Your task to perform on an android device: clear all cookies in the chrome app Image 0: 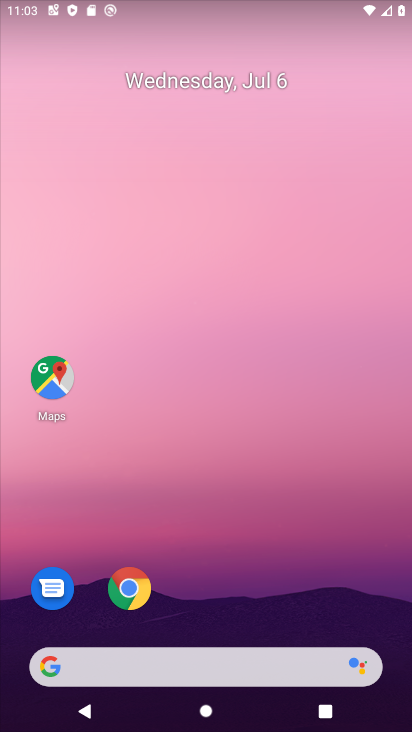
Step 0: drag from (215, 612) to (264, 204)
Your task to perform on an android device: clear all cookies in the chrome app Image 1: 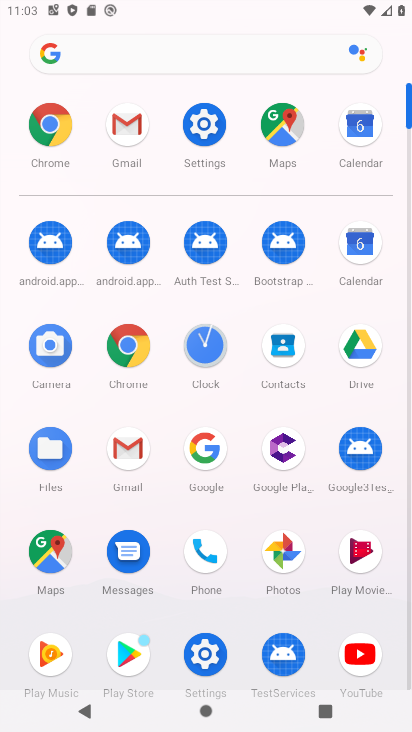
Step 1: click (139, 349)
Your task to perform on an android device: clear all cookies in the chrome app Image 2: 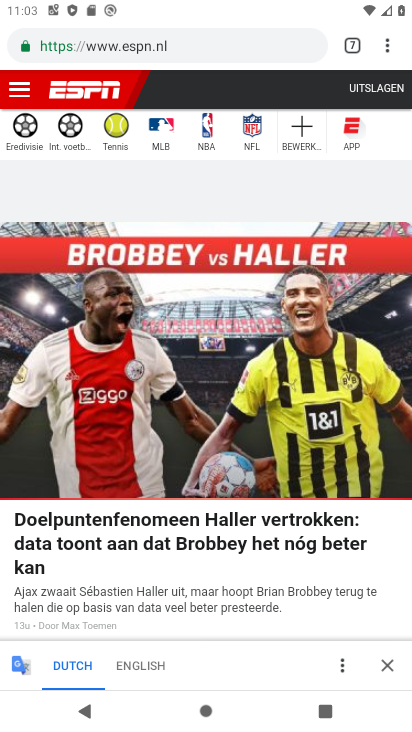
Step 2: click (403, 38)
Your task to perform on an android device: clear all cookies in the chrome app Image 3: 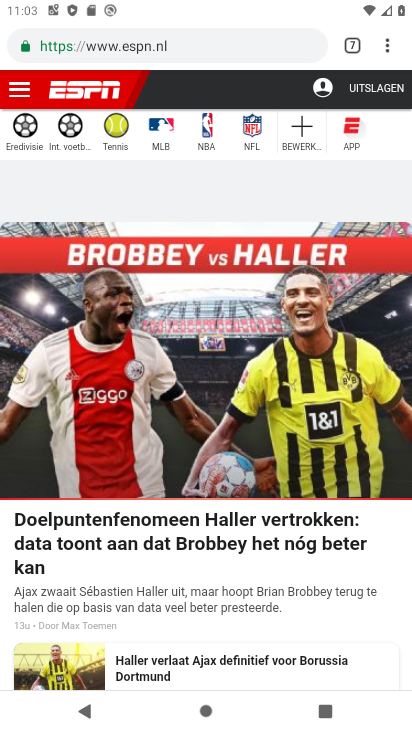
Step 3: click (375, 49)
Your task to perform on an android device: clear all cookies in the chrome app Image 4: 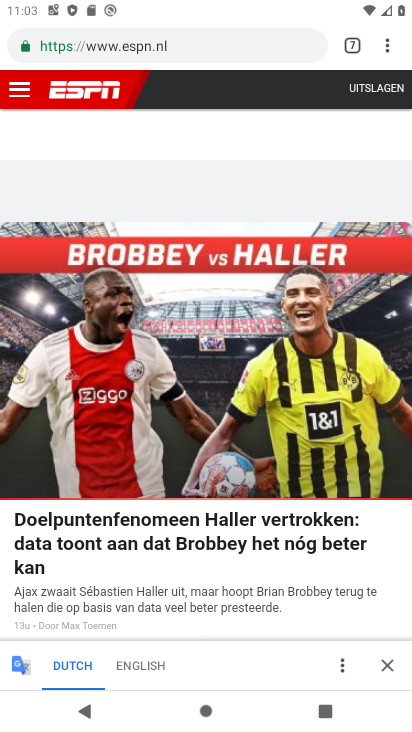
Step 4: click (392, 37)
Your task to perform on an android device: clear all cookies in the chrome app Image 5: 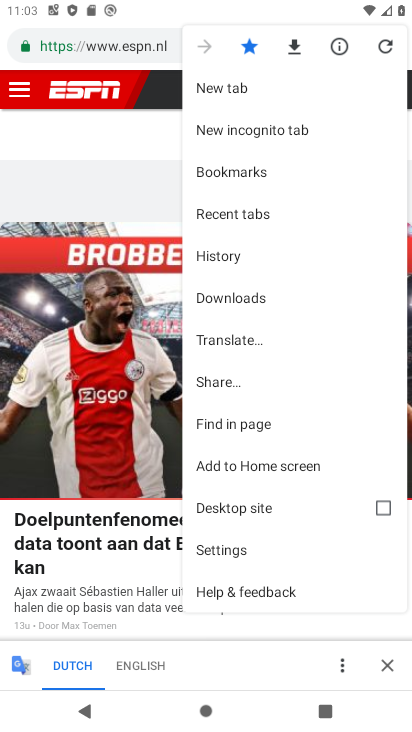
Step 5: click (211, 543)
Your task to perform on an android device: clear all cookies in the chrome app Image 6: 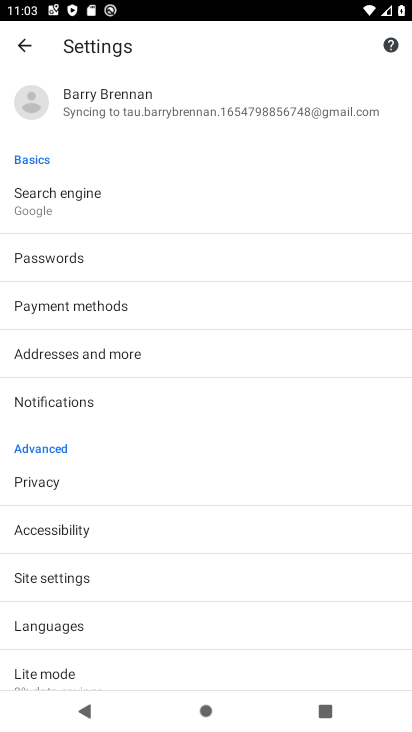
Step 6: drag from (231, 603) to (254, 201)
Your task to perform on an android device: clear all cookies in the chrome app Image 7: 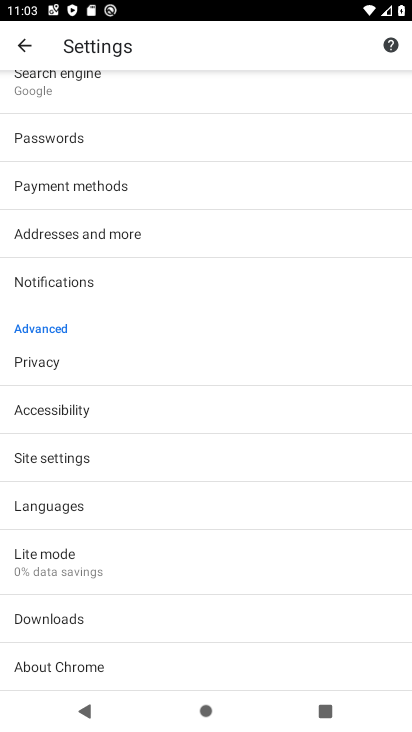
Step 7: drag from (199, 578) to (226, 50)
Your task to perform on an android device: clear all cookies in the chrome app Image 8: 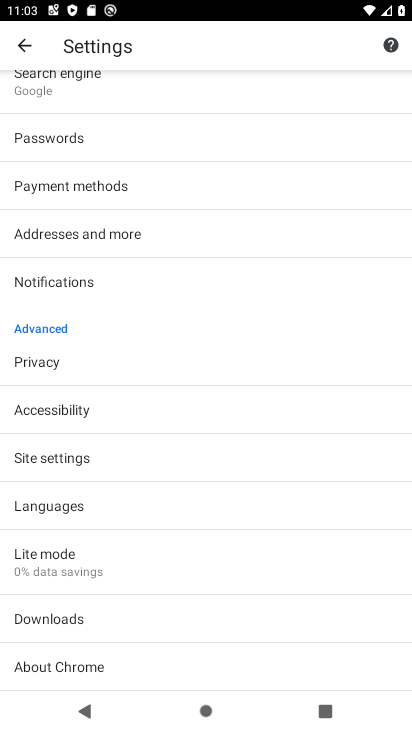
Step 8: drag from (157, 603) to (192, 181)
Your task to perform on an android device: clear all cookies in the chrome app Image 9: 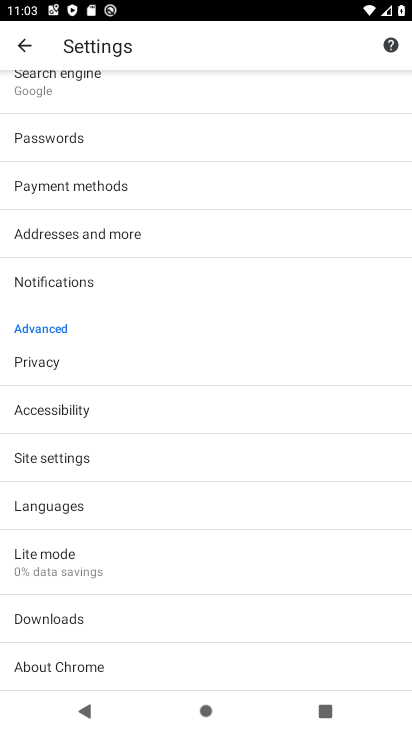
Step 9: click (86, 368)
Your task to perform on an android device: clear all cookies in the chrome app Image 10: 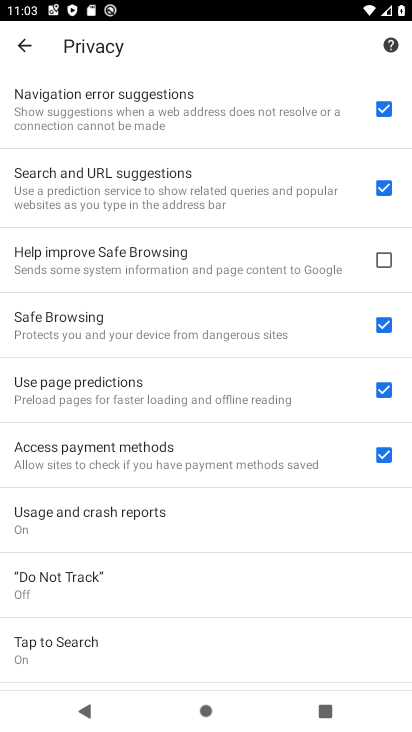
Step 10: drag from (153, 633) to (193, 219)
Your task to perform on an android device: clear all cookies in the chrome app Image 11: 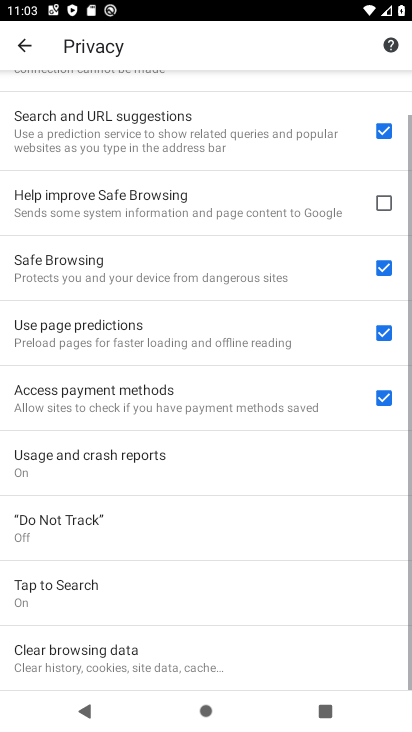
Step 11: click (97, 657)
Your task to perform on an android device: clear all cookies in the chrome app Image 12: 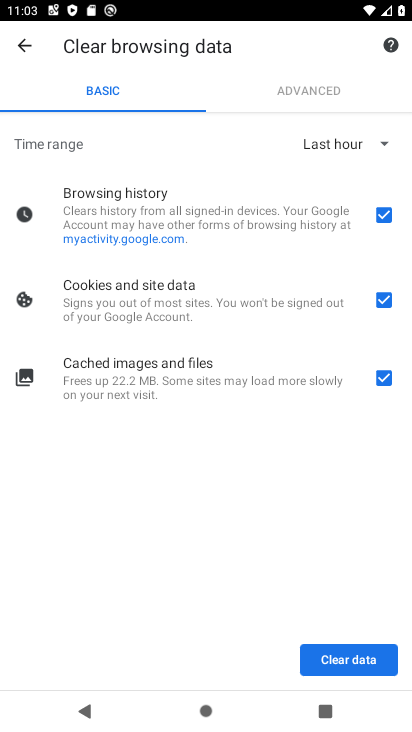
Step 12: click (329, 651)
Your task to perform on an android device: clear all cookies in the chrome app Image 13: 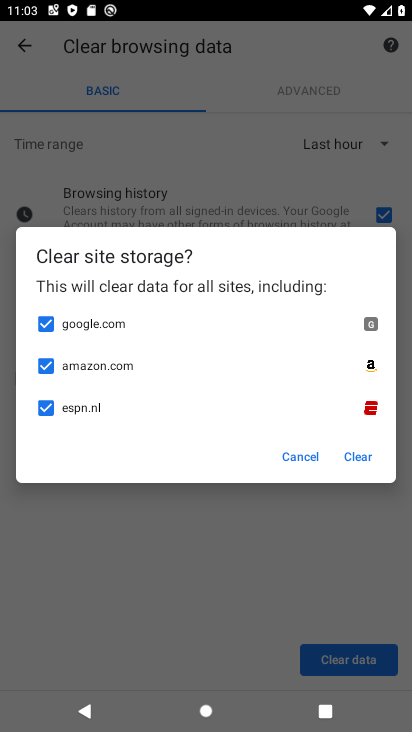
Step 13: click (370, 444)
Your task to perform on an android device: clear all cookies in the chrome app Image 14: 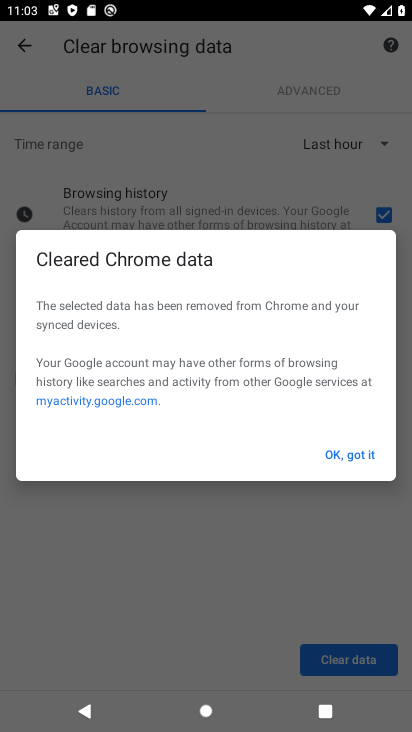
Step 14: click (370, 444)
Your task to perform on an android device: clear all cookies in the chrome app Image 15: 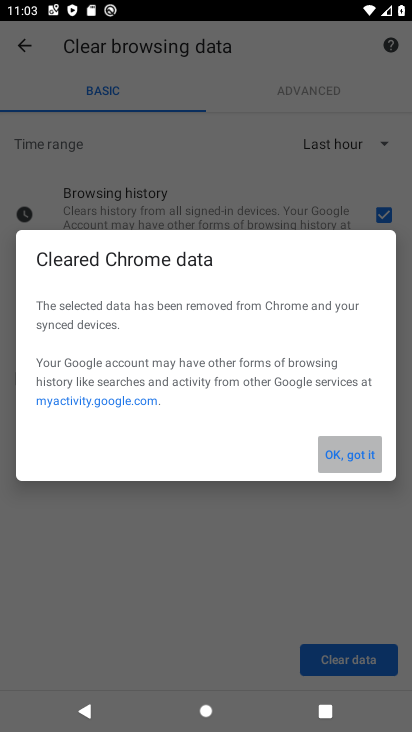
Step 15: click (370, 444)
Your task to perform on an android device: clear all cookies in the chrome app Image 16: 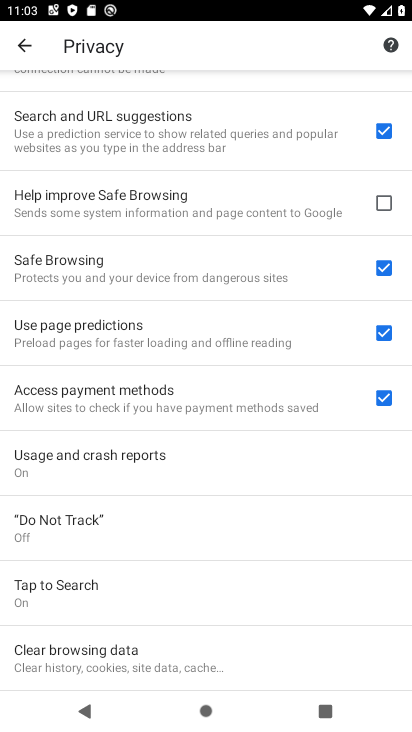
Step 16: task complete